Your task to perform on an android device: Go to calendar. Show me events next week Image 0: 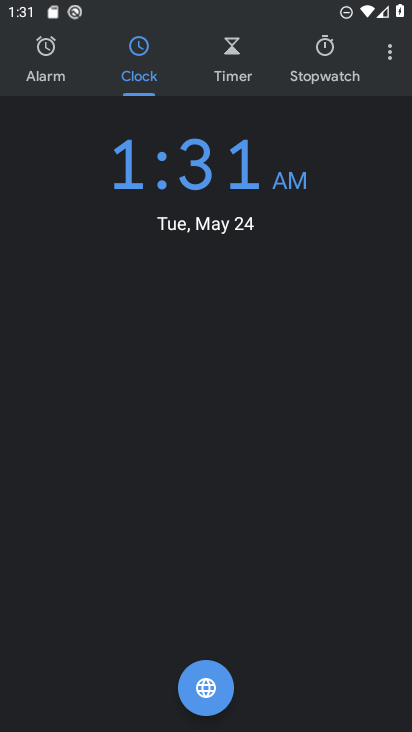
Step 0: press back button
Your task to perform on an android device: Go to calendar. Show me events next week Image 1: 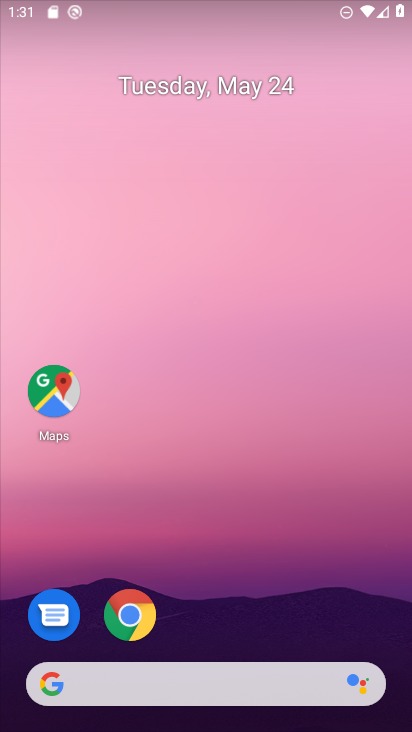
Step 1: drag from (165, 601) to (256, 138)
Your task to perform on an android device: Go to calendar. Show me events next week Image 2: 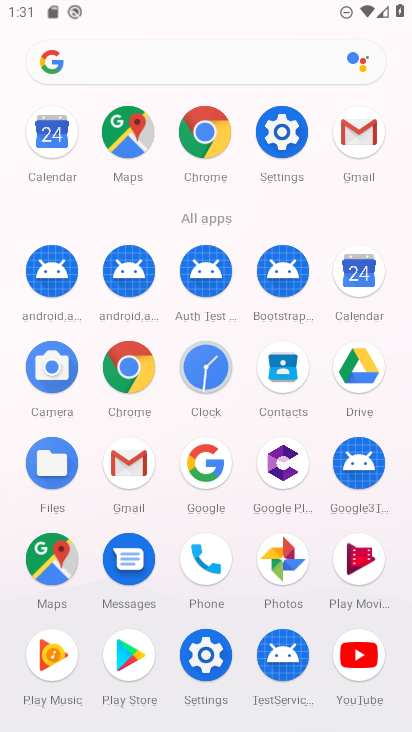
Step 2: click (368, 262)
Your task to perform on an android device: Go to calendar. Show me events next week Image 3: 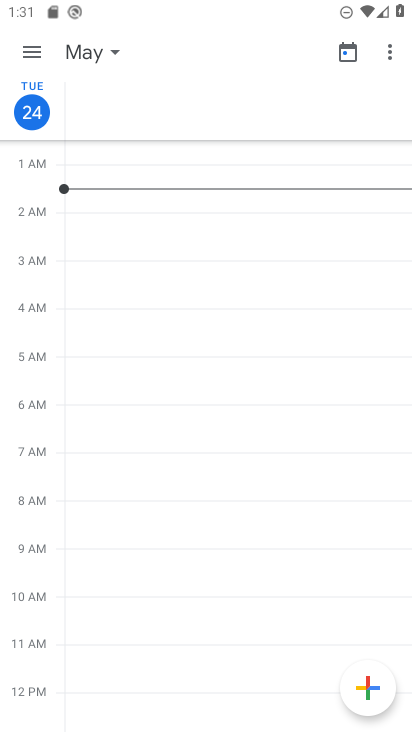
Step 3: click (35, 49)
Your task to perform on an android device: Go to calendar. Show me events next week Image 4: 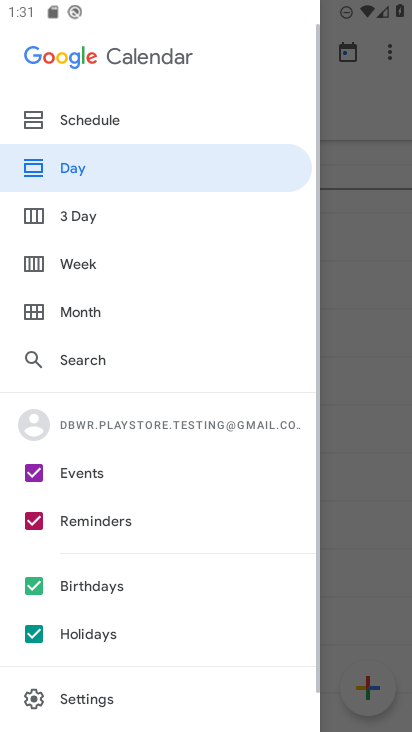
Step 4: click (66, 117)
Your task to perform on an android device: Go to calendar. Show me events next week Image 5: 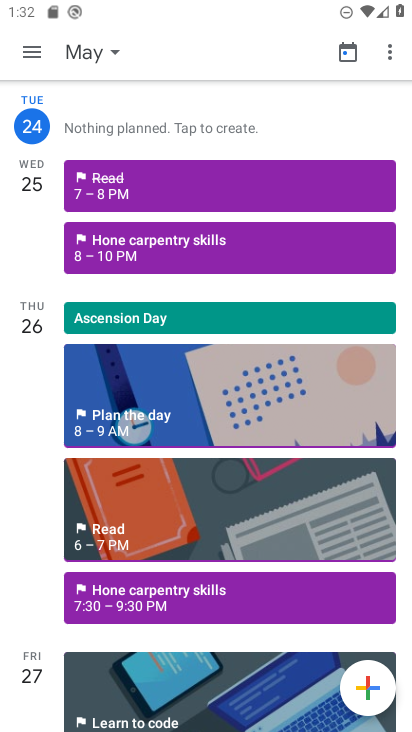
Step 5: drag from (243, 687) to (270, 180)
Your task to perform on an android device: Go to calendar. Show me events next week Image 6: 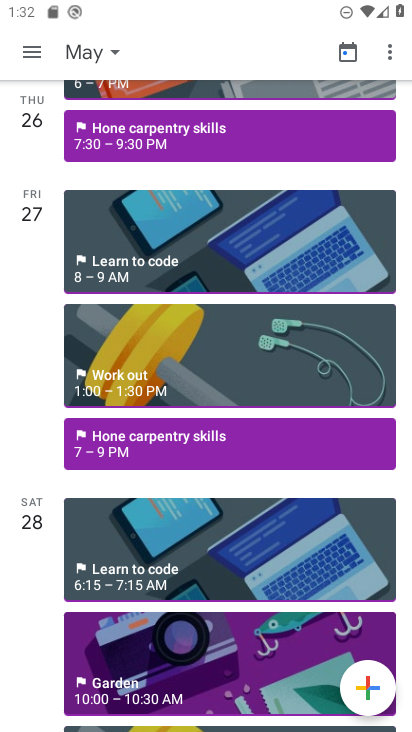
Step 6: drag from (142, 667) to (231, 109)
Your task to perform on an android device: Go to calendar. Show me events next week Image 7: 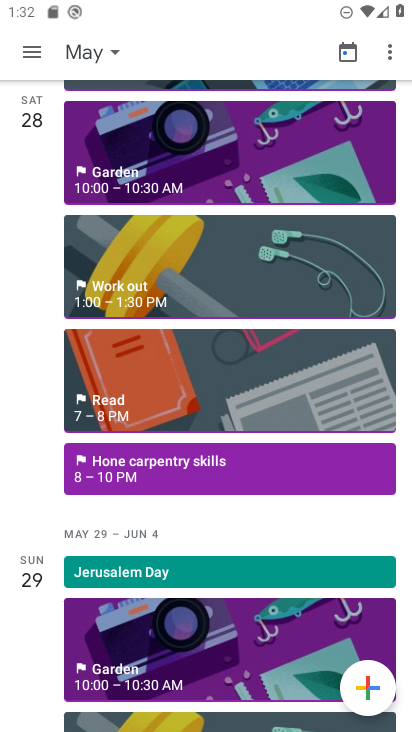
Step 7: drag from (177, 643) to (289, 0)
Your task to perform on an android device: Go to calendar. Show me events next week Image 8: 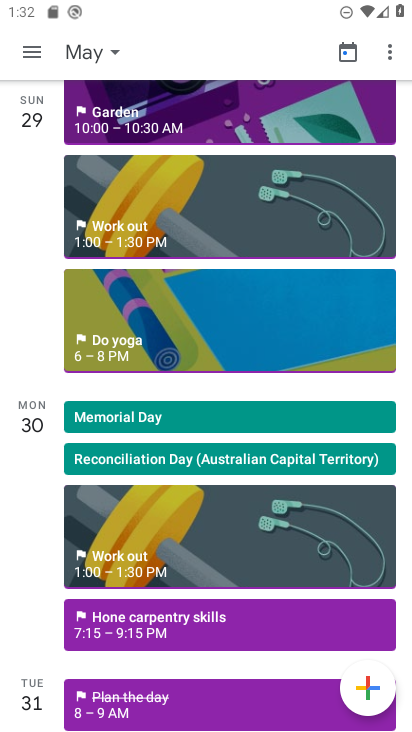
Step 8: click (91, 420)
Your task to perform on an android device: Go to calendar. Show me events next week Image 9: 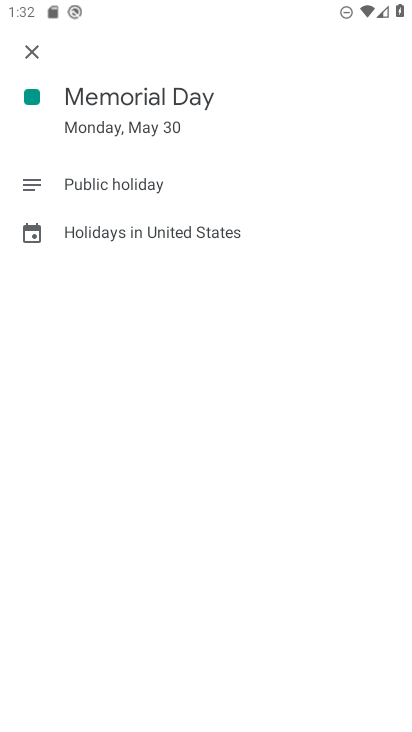
Step 9: task complete